Your task to perform on an android device: open wifi settings Image 0: 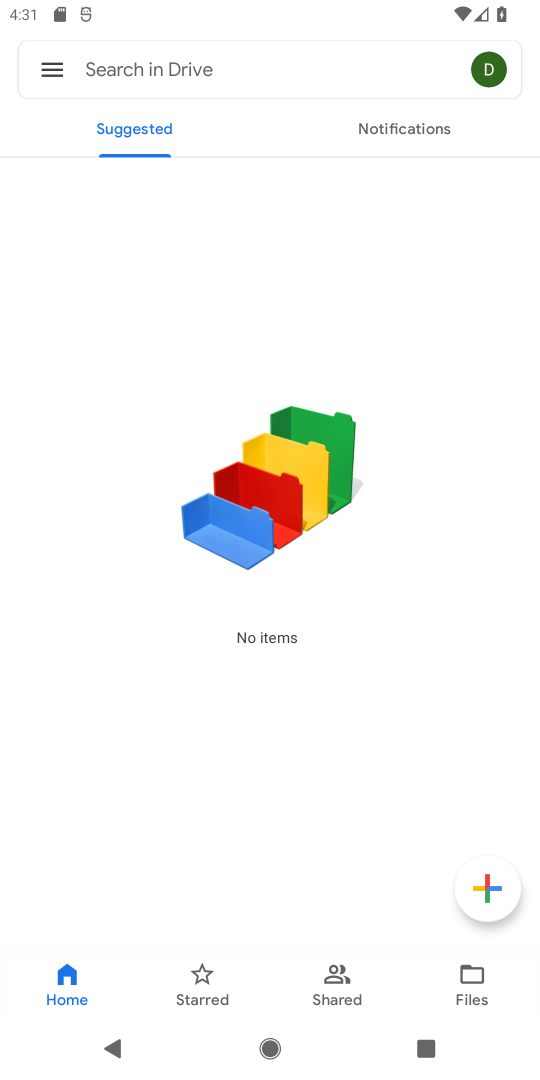
Step 0: press home button
Your task to perform on an android device: open wifi settings Image 1: 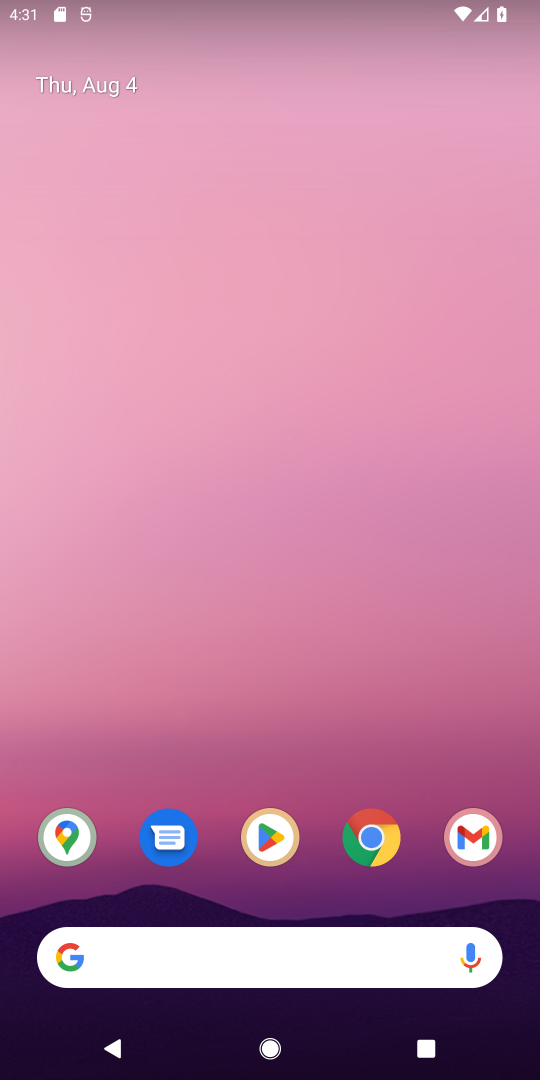
Step 1: drag from (272, 709) to (255, 104)
Your task to perform on an android device: open wifi settings Image 2: 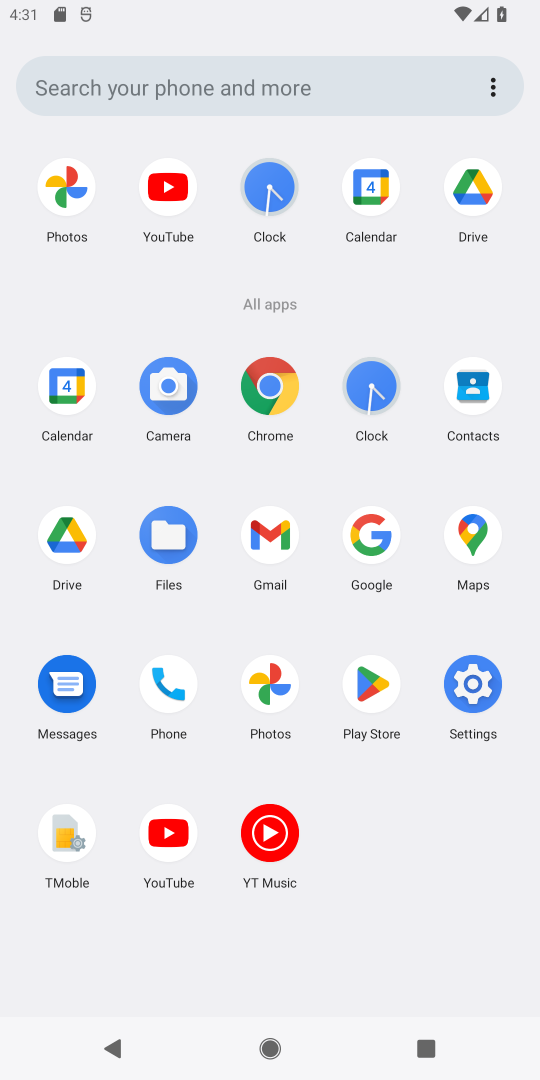
Step 2: click (477, 684)
Your task to perform on an android device: open wifi settings Image 3: 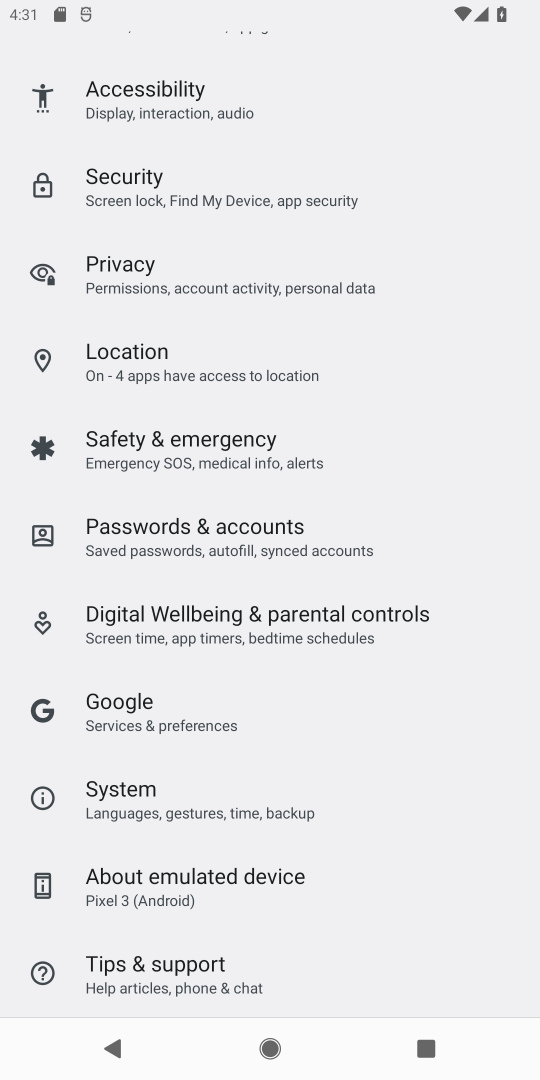
Step 3: drag from (275, 193) to (396, 875)
Your task to perform on an android device: open wifi settings Image 4: 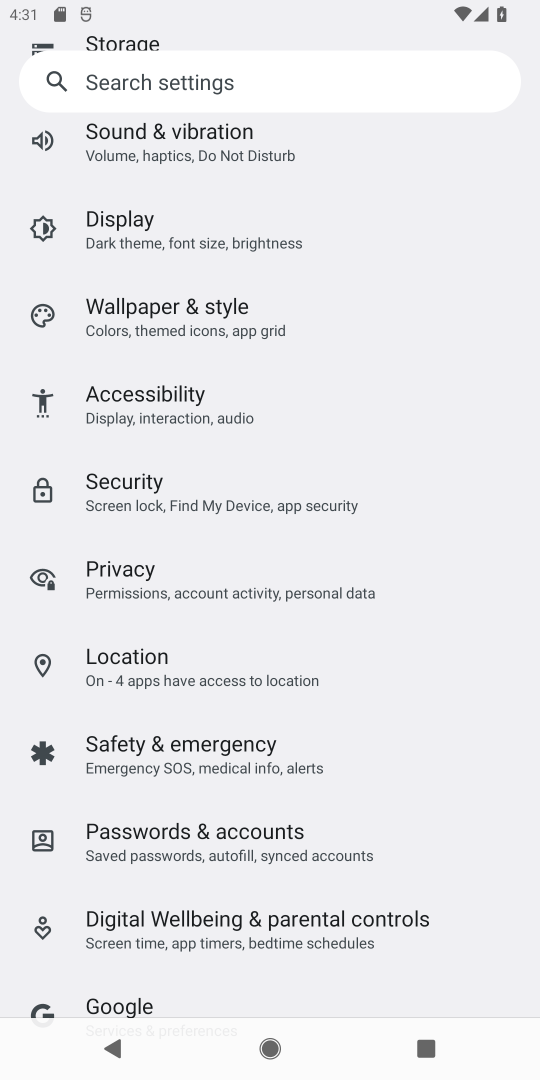
Step 4: drag from (361, 325) to (438, 899)
Your task to perform on an android device: open wifi settings Image 5: 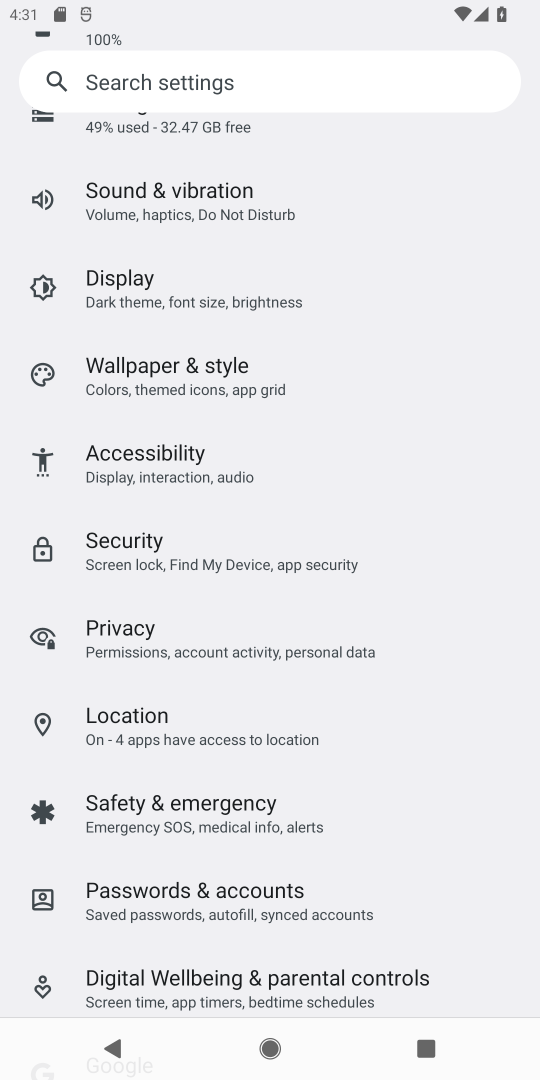
Step 5: drag from (389, 287) to (418, 835)
Your task to perform on an android device: open wifi settings Image 6: 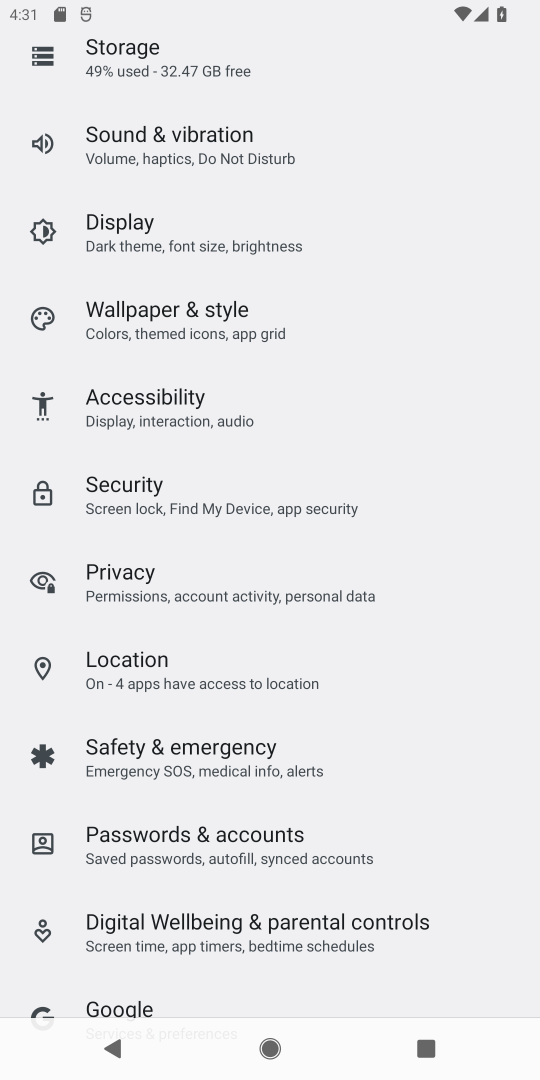
Step 6: drag from (307, 219) to (405, 747)
Your task to perform on an android device: open wifi settings Image 7: 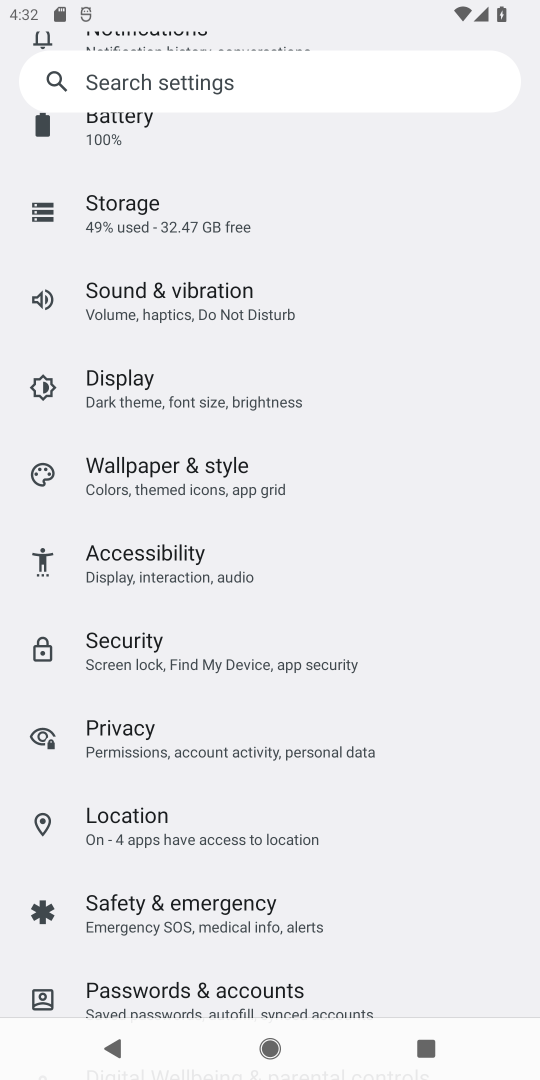
Step 7: drag from (292, 160) to (349, 818)
Your task to perform on an android device: open wifi settings Image 8: 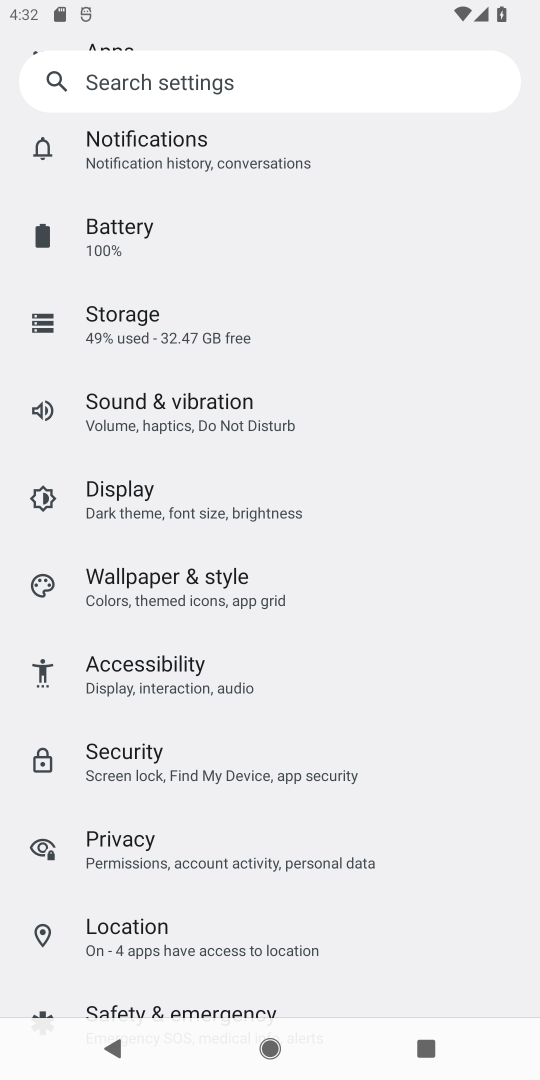
Step 8: drag from (292, 271) to (395, 887)
Your task to perform on an android device: open wifi settings Image 9: 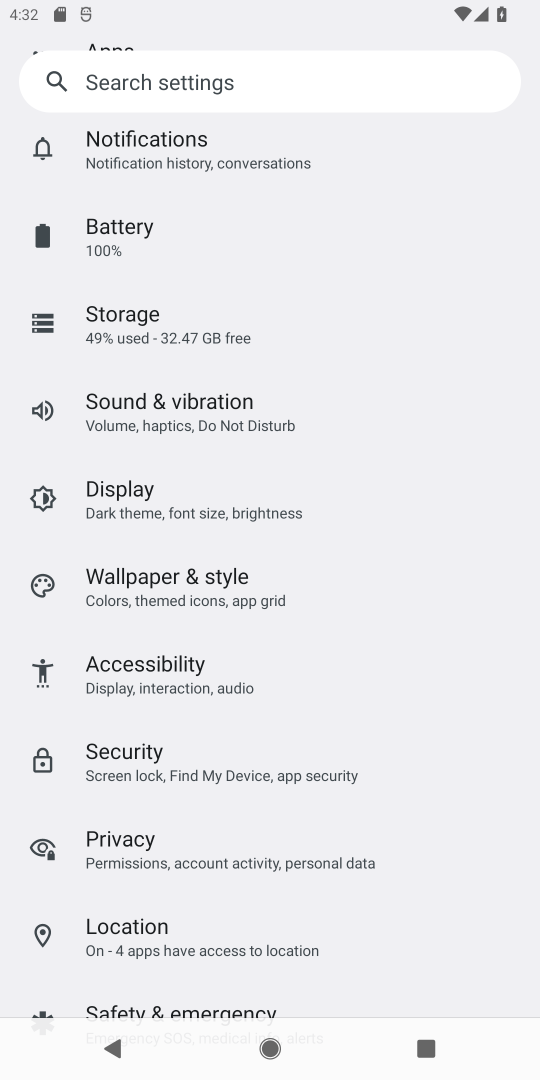
Step 9: drag from (216, 308) to (337, 823)
Your task to perform on an android device: open wifi settings Image 10: 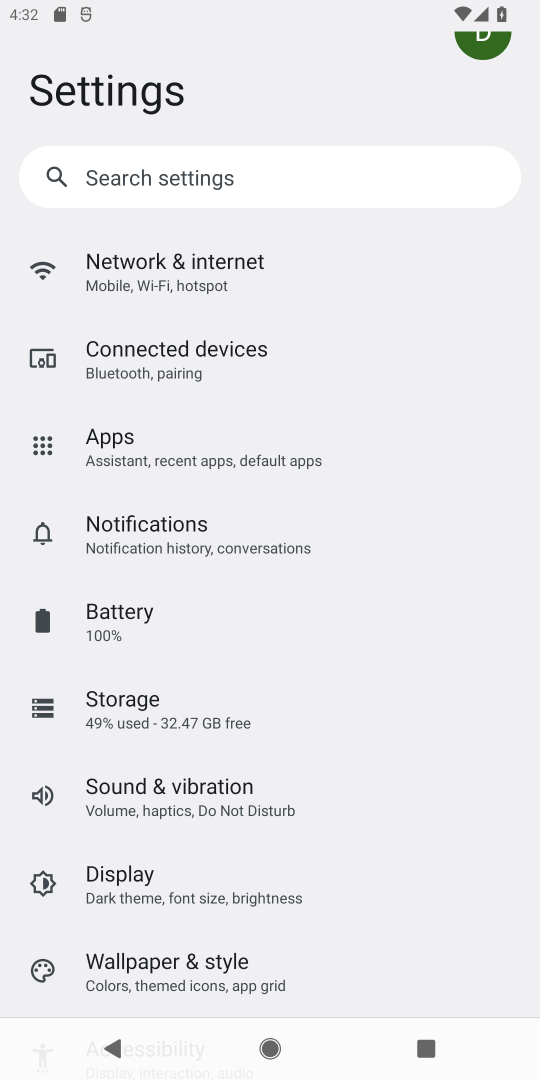
Step 10: click (278, 268)
Your task to perform on an android device: open wifi settings Image 11: 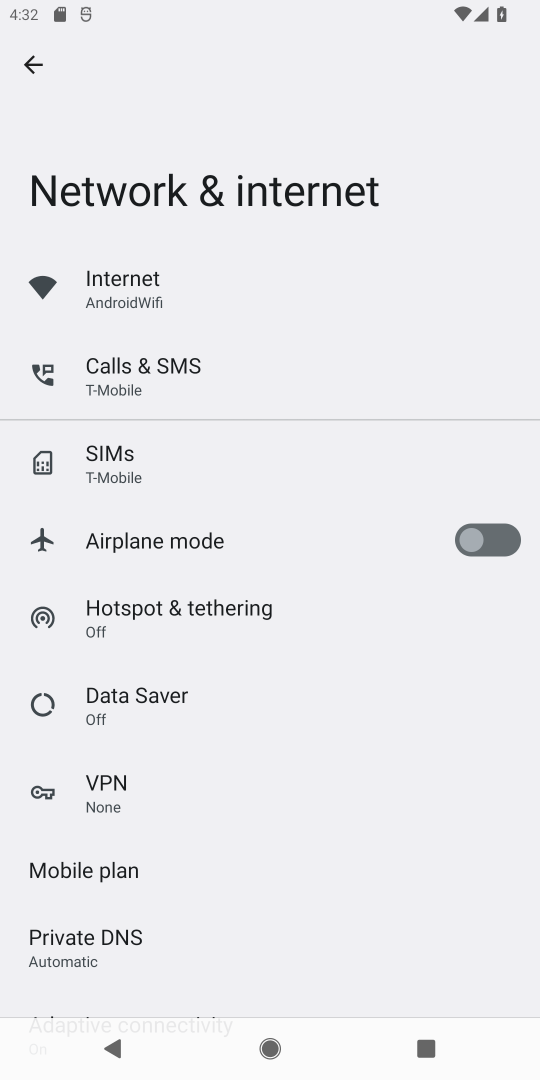
Step 11: click (118, 282)
Your task to perform on an android device: open wifi settings Image 12: 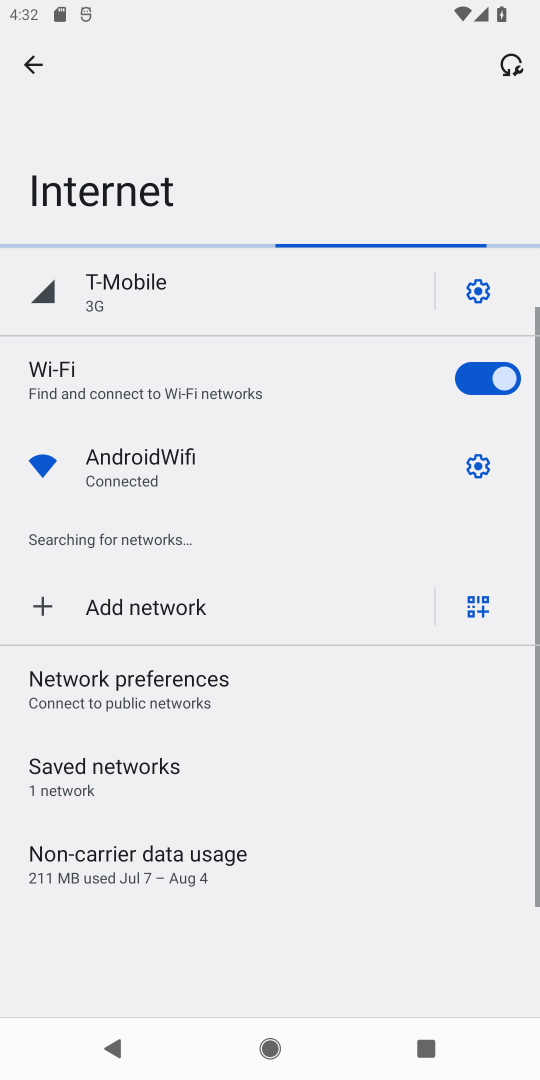
Step 12: click (472, 463)
Your task to perform on an android device: open wifi settings Image 13: 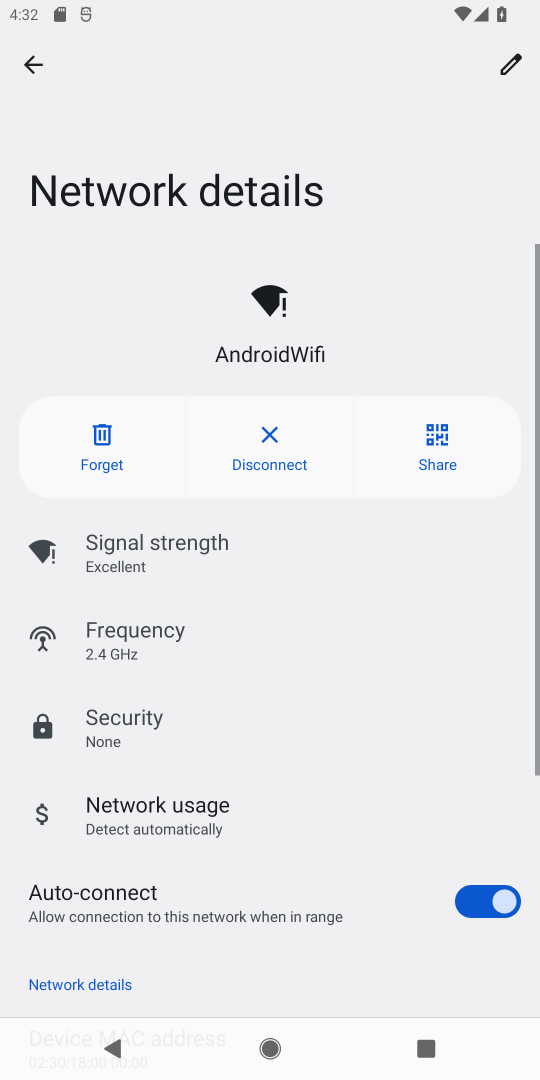
Step 13: task complete